Your task to perform on an android device: see tabs open on other devices in the chrome app Image 0: 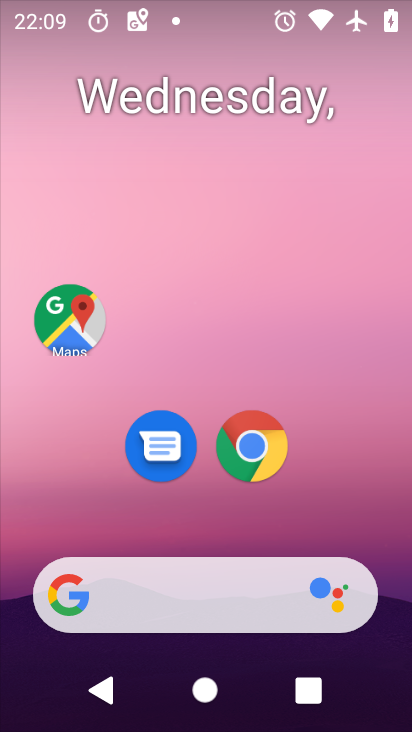
Step 0: press home button
Your task to perform on an android device: see tabs open on other devices in the chrome app Image 1: 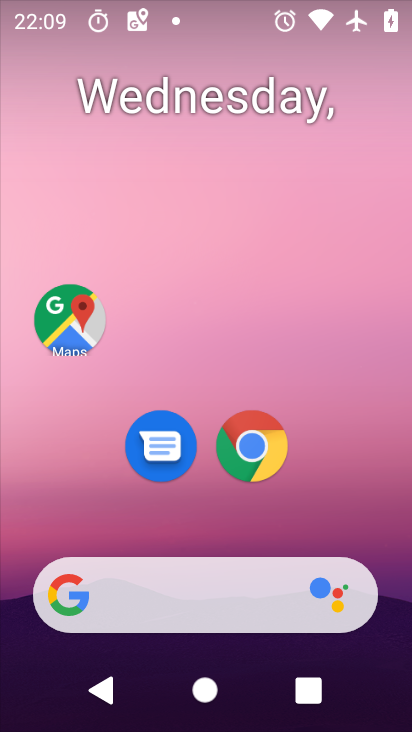
Step 1: click (256, 462)
Your task to perform on an android device: see tabs open on other devices in the chrome app Image 2: 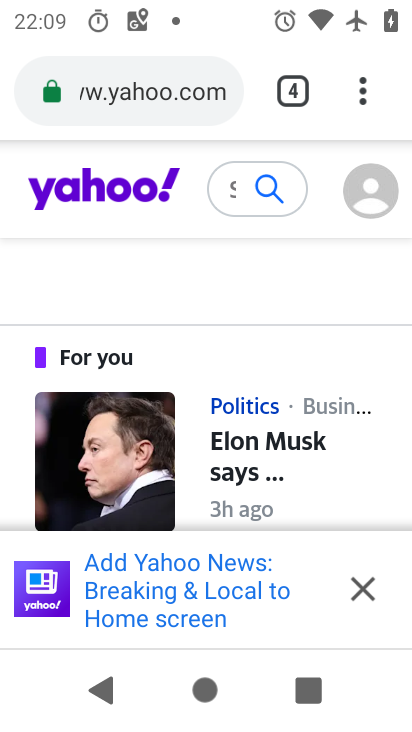
Step 2: task complete